Your task to perform on an android device: see sites visited before in the chrome app Image 0: 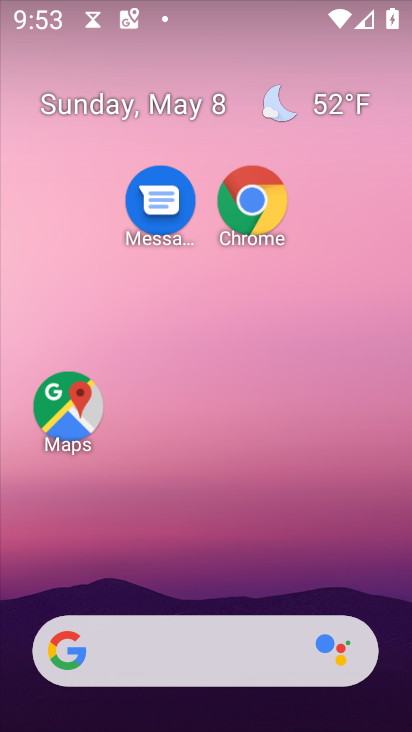
Step 0: drag from (187, 615) to (112, 11)
Your task to perform on an android device: see sites visited before in the chrome app Image 1: 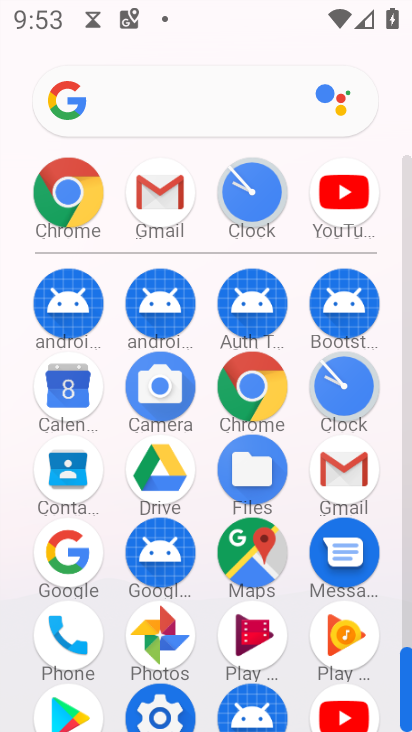
Step 1: click (271, 377)
Your task to perform on an android device: see sites visited before in the chrome app Image 2: 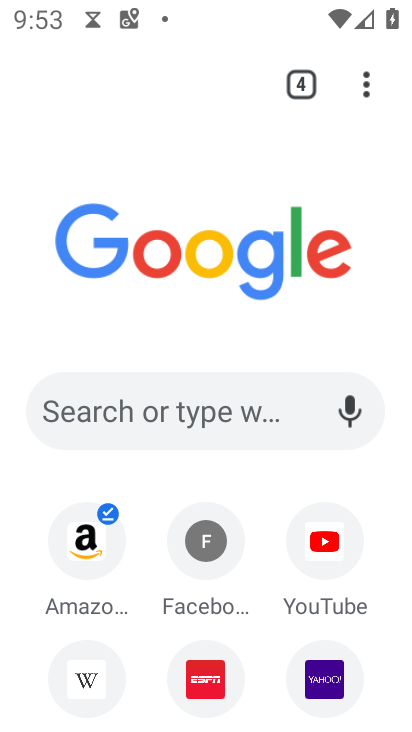
Step 2: click (376, 77)
Your task to perform on an android device: see sites visited before in the chrome app Image 3: 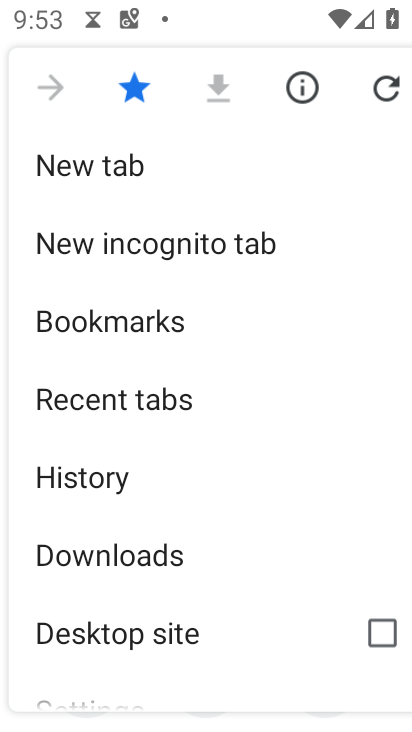
Step 3: drag from (243, 580) to (199, 364)
Your task to perform on an android device: see sites visited before in the chrome app Image 4: 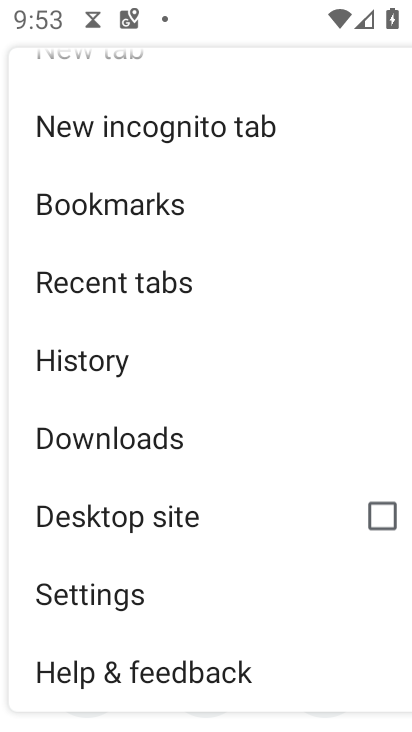
Step 4: click (122, 355)
Your task to perform on an android device: see sites visited before in the chrome app Image 5: 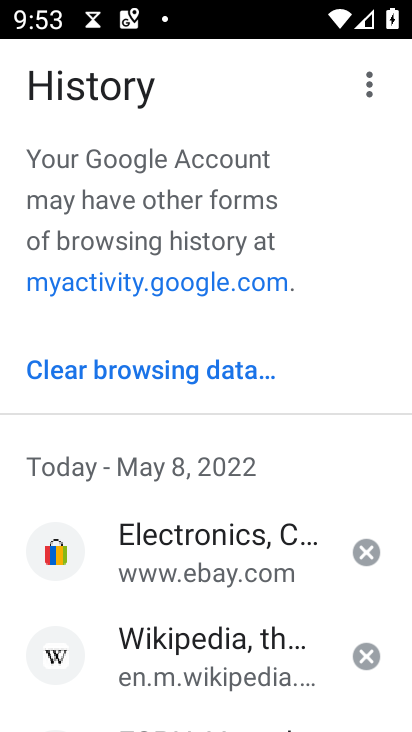
Step 5: click (141, 372)
Your task to perform on an android device: see sites visited before in the chrome app Image 6: 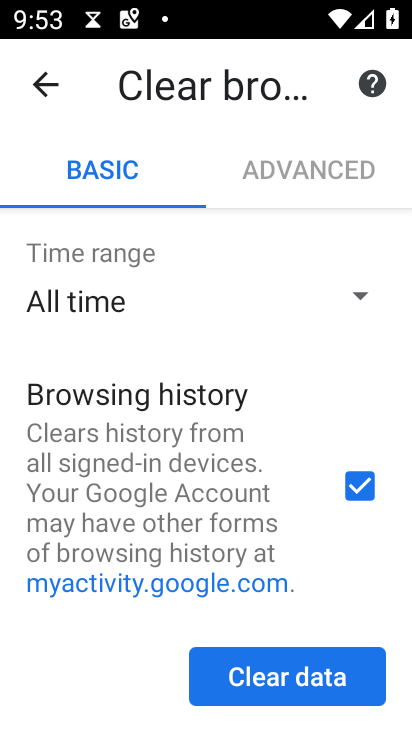
Step 6: click (345, 682)
Your task to perform on an android device: see sites visited before in the chrome app Image 7: 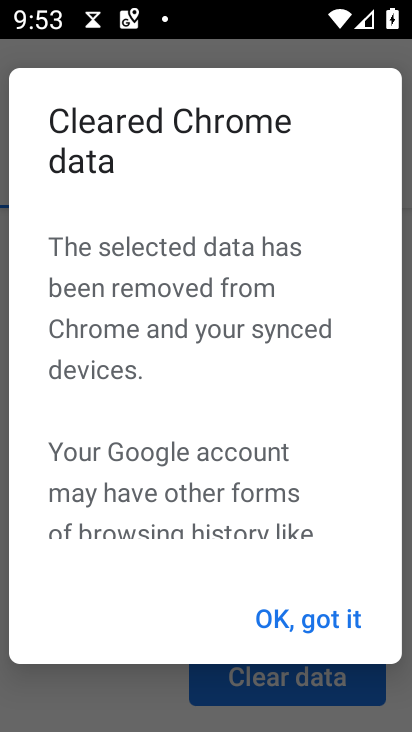
Step 7: click (312, 623)
Your task to perform on an android device: see sites visited before in the chrome app Image 8: 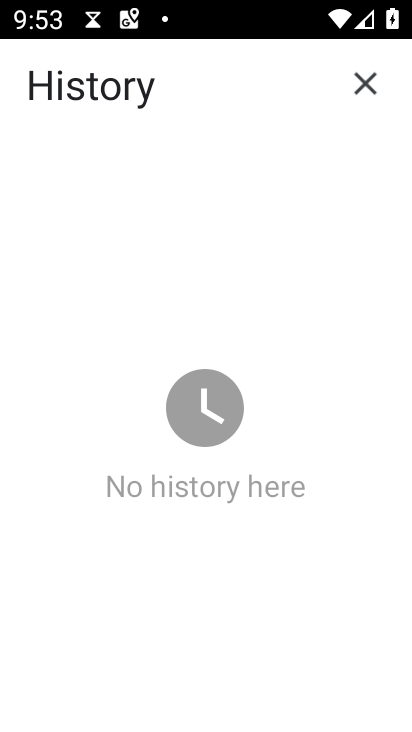
Step 8: task complete